Your task to perform on an android device: Open Android settings Image 0: 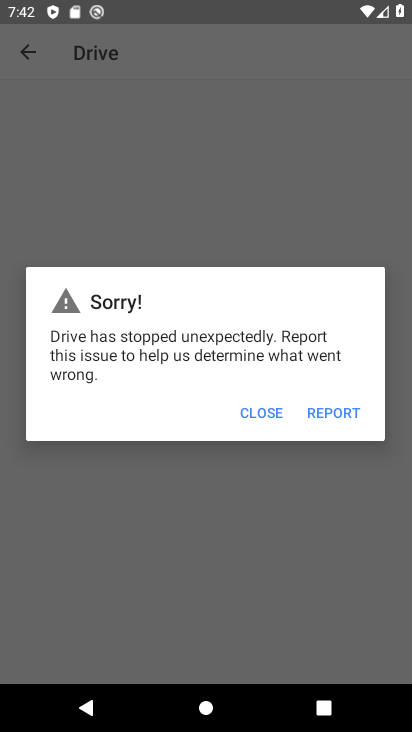
Step 0: press home button
Your task to perform on an android device: Open Android settings Image 1: 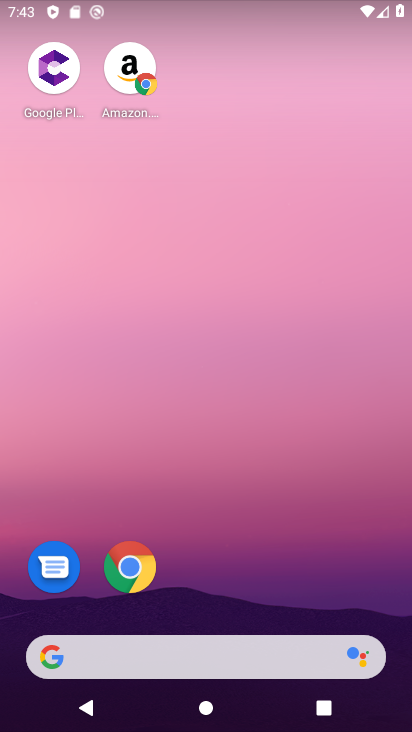
Step 1: drag from (218, 600) to (249, 135)
Your task to perform on an android device: Open Android settings Image 2: 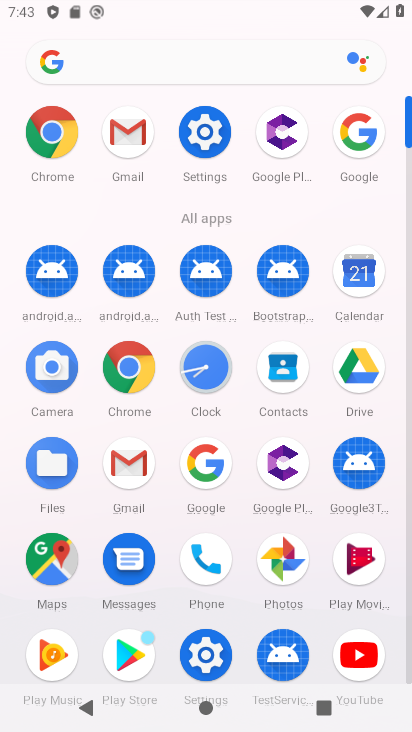
Step 2: click (206, 133)
Your task to perform on an android device: Open Android settings Image 3: 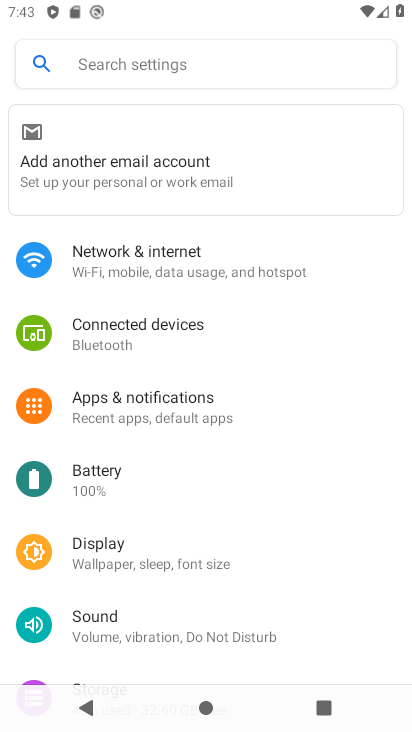
Step 3: task complete